Your task to perform on an android device: change text size in settings app Image 0: 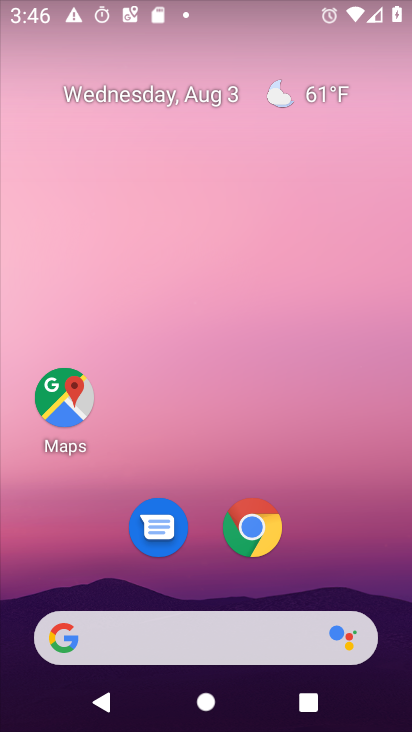
Step 0: drag from (339, 539) to (333, 81)
Your task to perform on an android device: change text size in settings app Image 1: 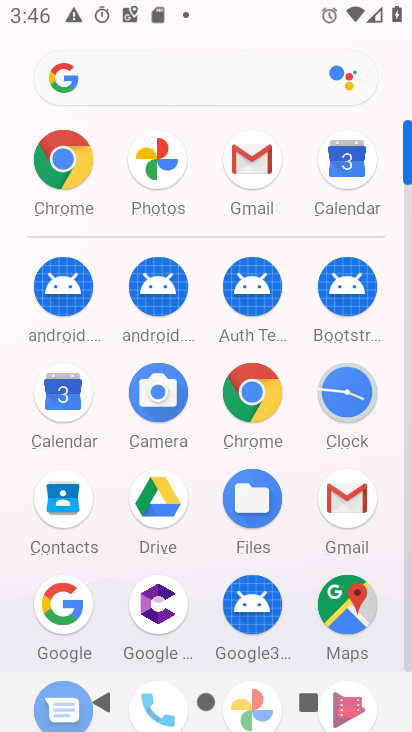
Step 1: drag from (196, 556) to (219, 192)
Your task to perform on an android device: change text size in settings app Image 2: 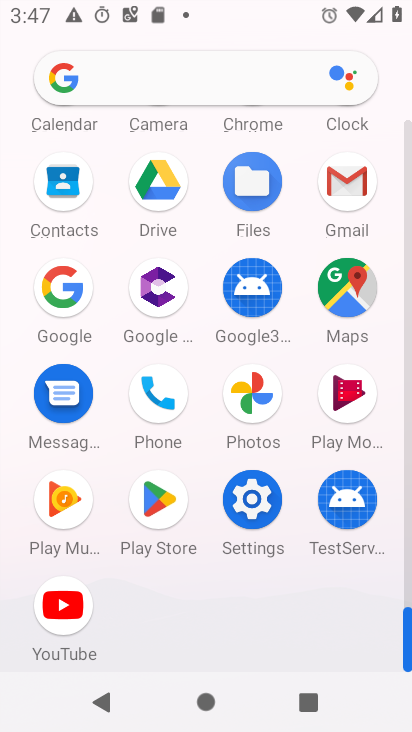
Step 2: click (257, 510)
Your task to perform on an android device: change text size in settings app Image 3: 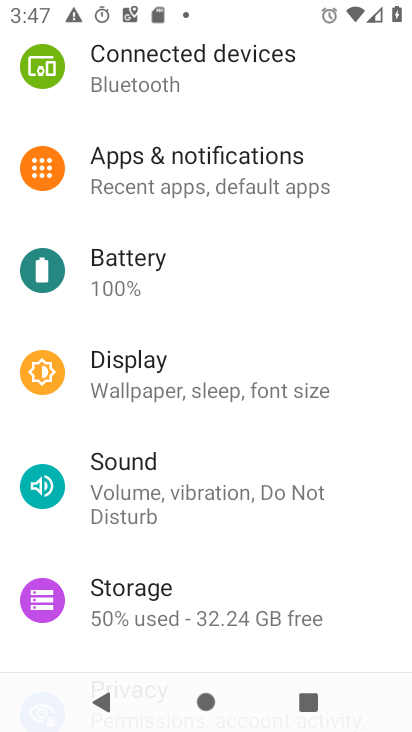
Step 3: click (203, 386)
Your task to perform on an android device: change text size in settings app Image 4: 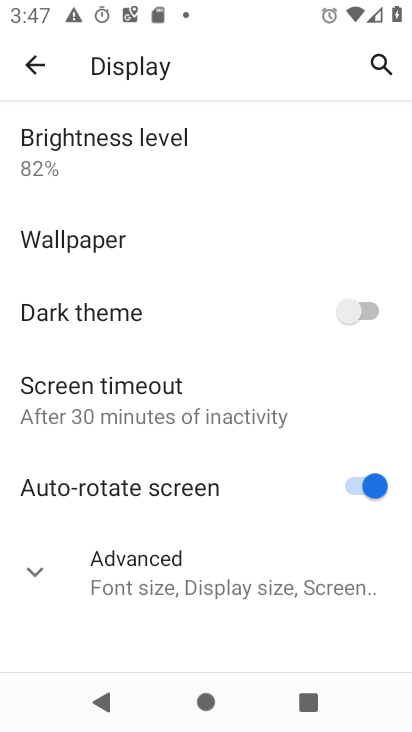
Step 4: click (174, 555)
Your task to perform on an android device: change text size in settings app Image 5: 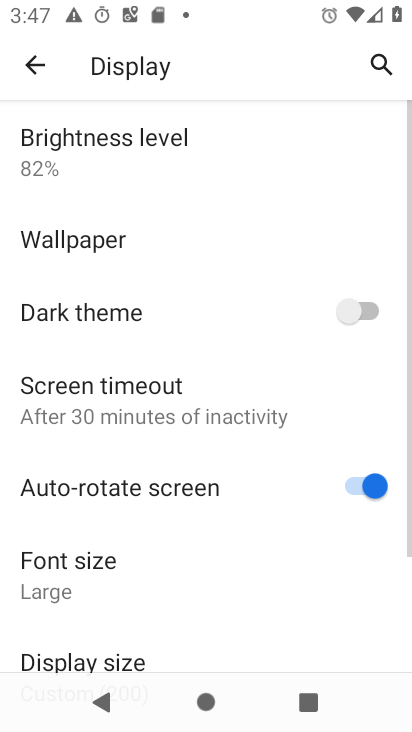
Step 5: click (103, 575)
Your task to perform on an android device: change text size in settings app Image 6: 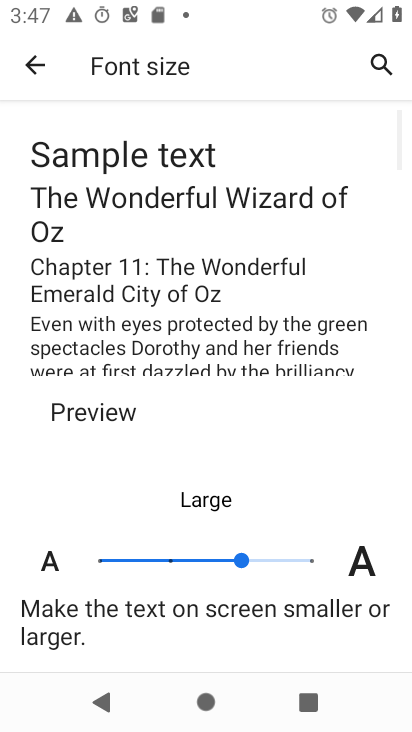
Step 6: click (159, 558)
Your task to perform on an android device: change text size in settings app Image 7: 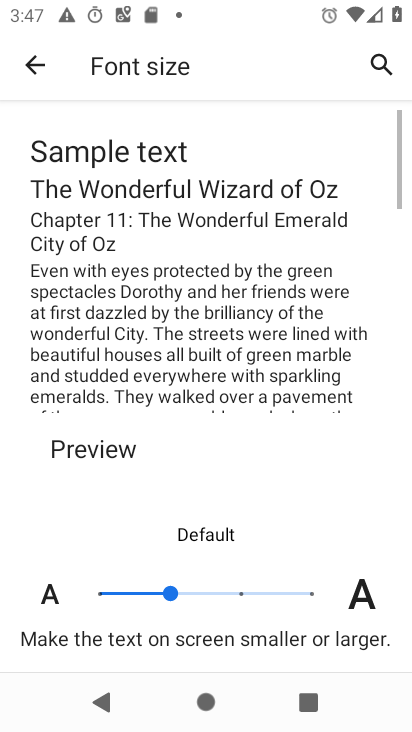
Step 7: task complete